Your task to perform on an android device: toggle data saver in the chrome app Image 0: 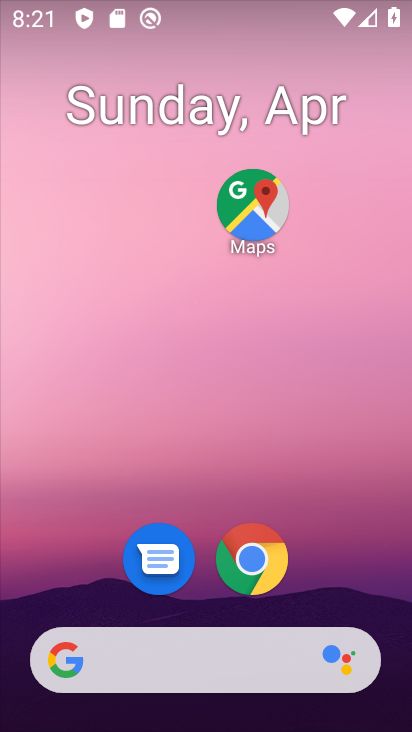
Step 0: click (256, 562)
Your task to perform on an android device: toggle data saver in the chrome app Image 1: 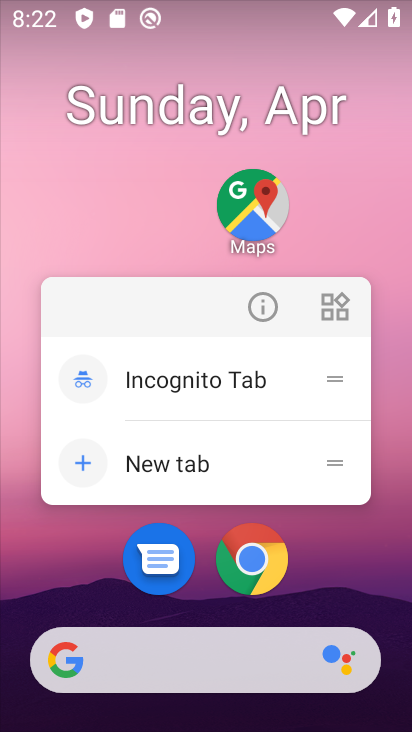
Step 1: click (261, 308)
Your task to perform on an android device: toggle data saver in the chrome app Image 2: 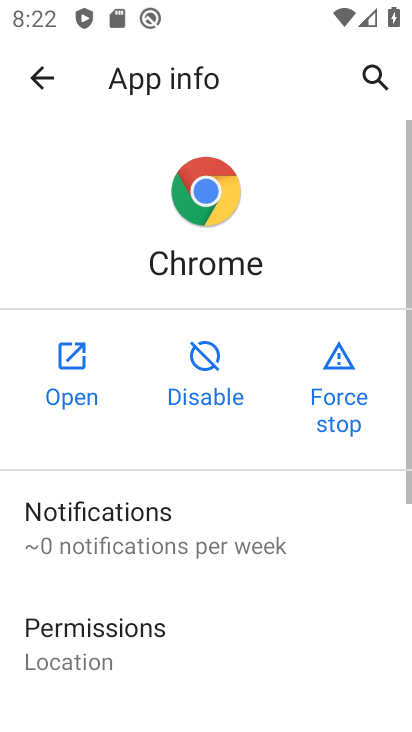
Step 2: click (83, 359)
Your task to perform on an android device: toggle data saver in the chrome app Image 3: 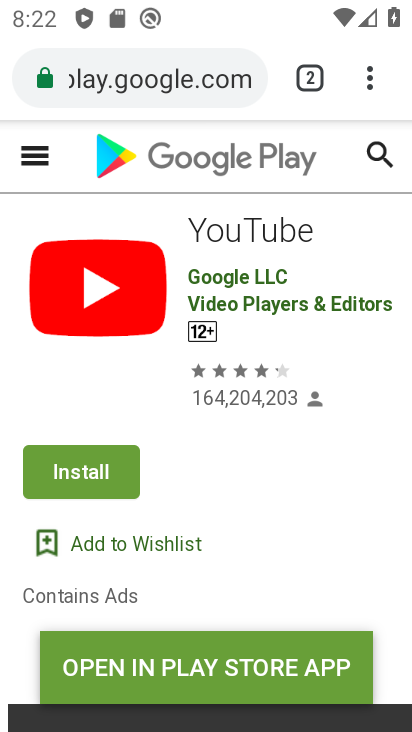
Step 3: press home button
Your task to perform on an android device: toggle data saver in the chrome app Image 4: 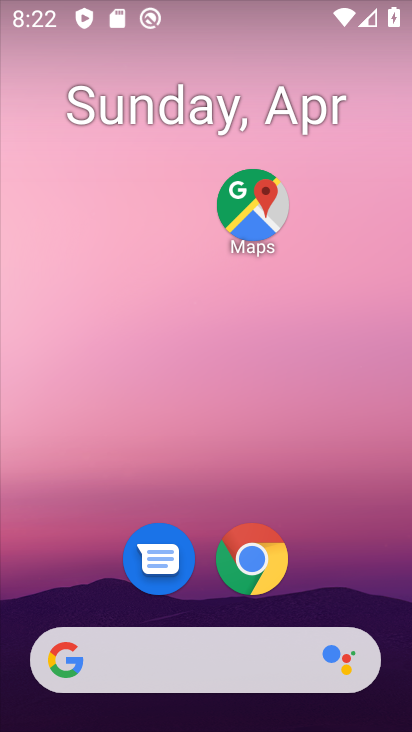
Step 4: click (244, 546)
Your task to perform on an android device: toggle data saver in the chrome app Image 5: 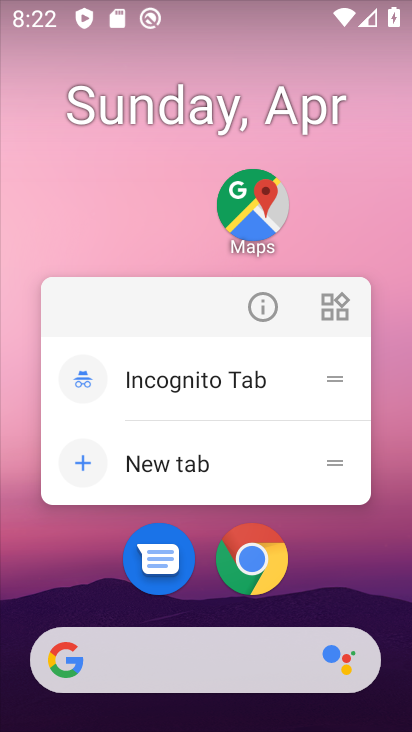
Step 5: click (258, 306)
Your task to perform on an android device: toggle data saver in the chrome app Image 6: 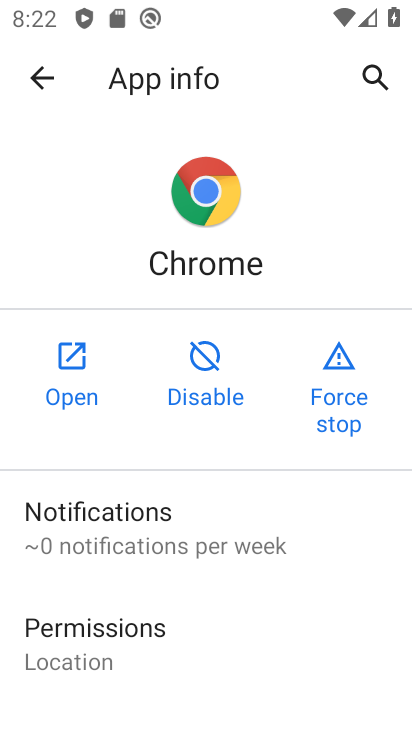
Step 6: click (64, 371)
Your task to perform on an android device: toggle data saver in the chrome app Image 7: 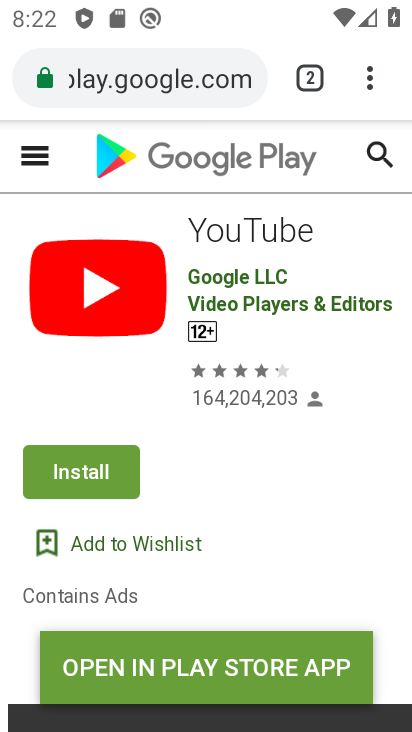
Step 7: press back button
Your task to perform on an android device: toggle data saver in the chrome app Image 8: 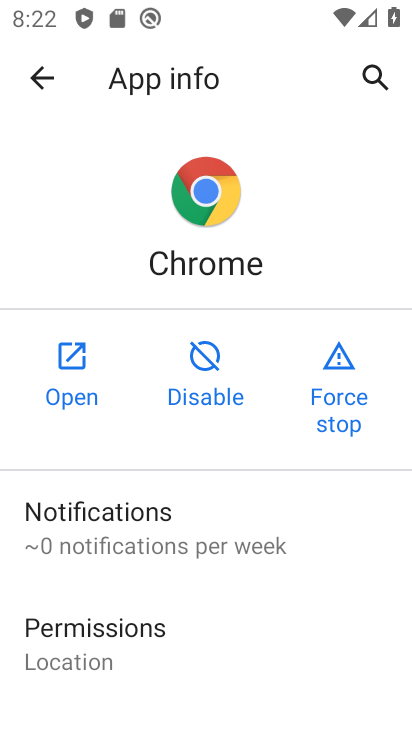
Step 8: click (68, 355)
Your task to perform on an android device: toggle data saver in the chrome app Image 9: 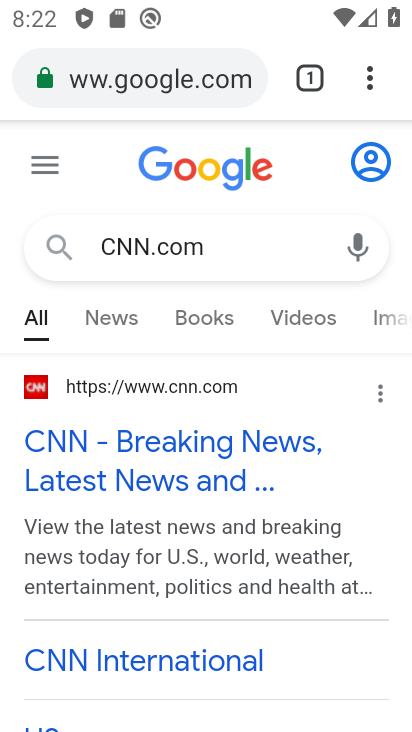
Step 9: click (369, 81)
Your task to perform on an android device: toggle data saver in the chrome app Image 10: 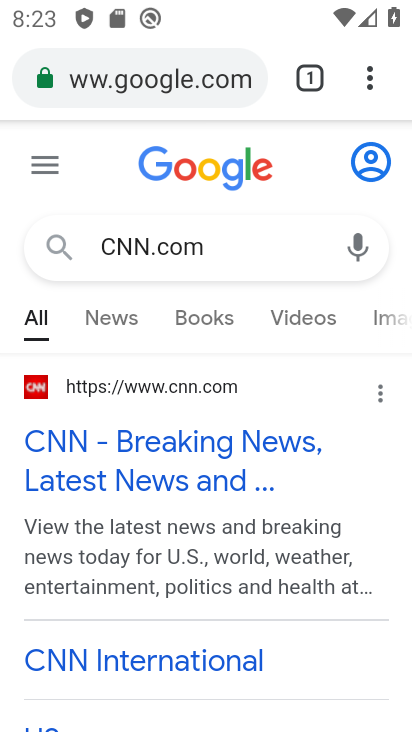
Step 10: click (360, 63)
Your task to perform on an android device: toggle data saver in the chrome app Image 11: 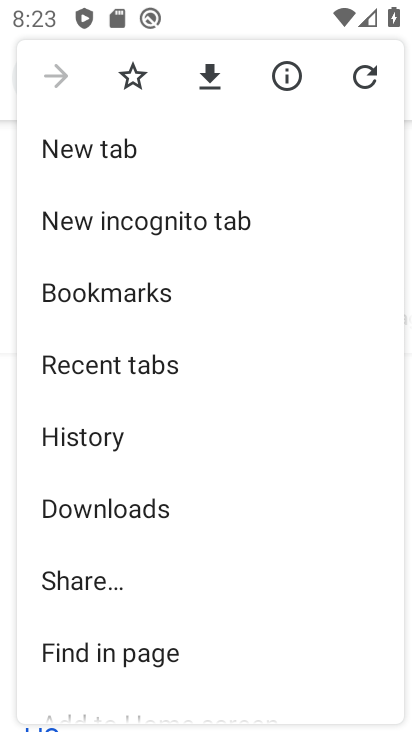
Step 11: drag from (170, 623) to (285, 305)
Your task to perform on an android device: toggle data saver in the chrome app Image 12: 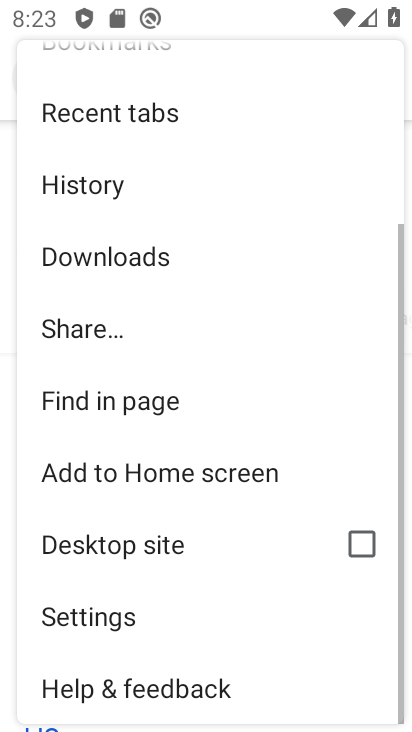
Step 12: click (90, 599)
Your task to perform on an android device: toggle data saver in the chrome app Image 13: 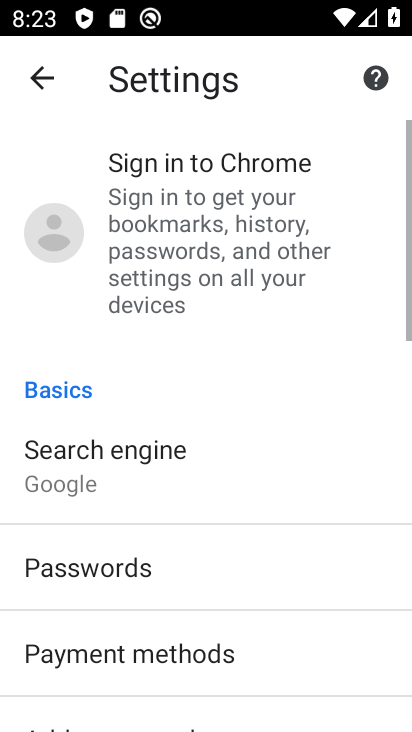
Step 13: drag from (108, 643) to (267, 295)
Your task to perform on an android device: toggle data saver in the chrome app Image 14: 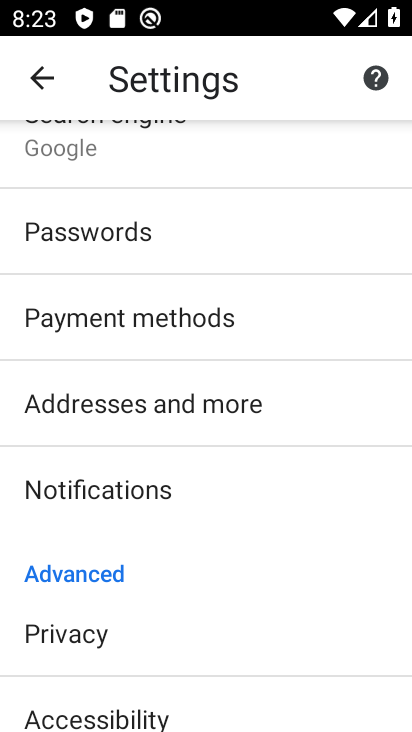
Step 14: drag from (202, 624) to (261, 423)
Your task to perform on an android device: toggle data saver in the chrome app Image 15: 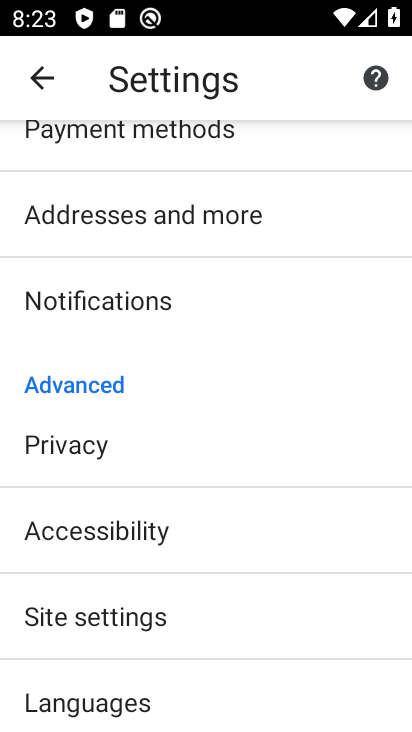
Step 15: drag from (73, 607) to (197, 383)
Your task to perform on an android device: toggle data saver in the chrome app Image 16: 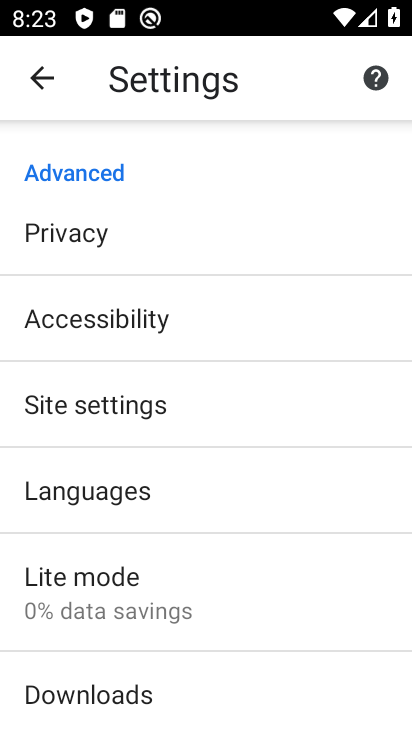
Step 16: click (76, 588)
Your task to perform on an android device: toggle data saver in the chrome app Image 17: 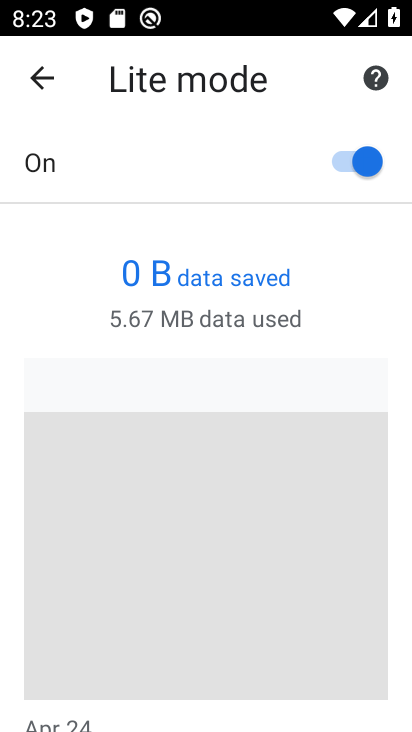
Step 17: click (358, 165)
Your task to perform on an android device: toggle data saver in the chrome app Image 18: 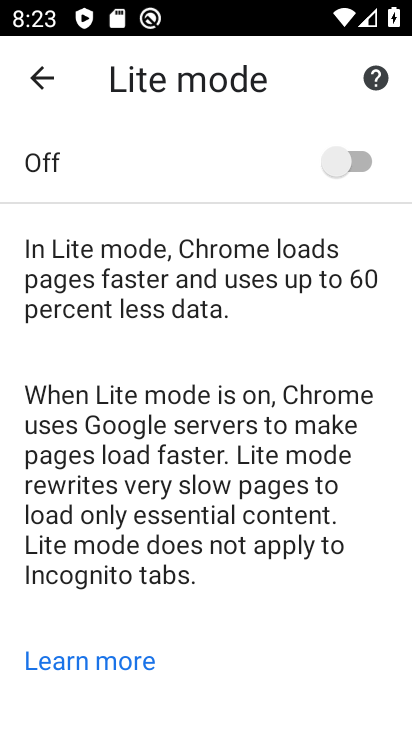
Step 18: task complete